Your task to perform on an android device: Open Google Maps and go to "Timeline" Image 0: 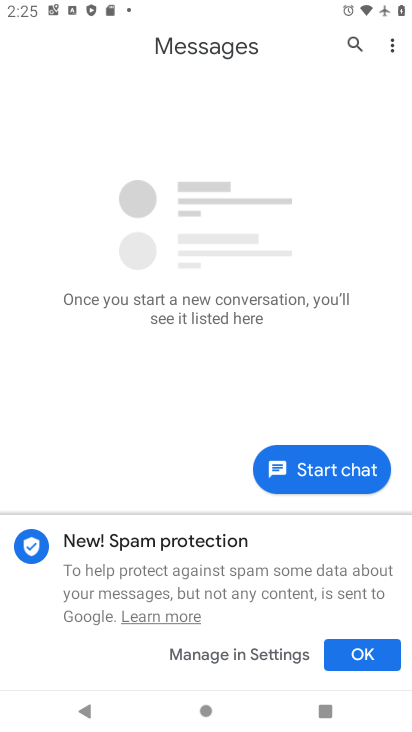
Step 0: press home button
Your task to perform on an android device: Open Google Maps and go to "Timeline" Image 1: 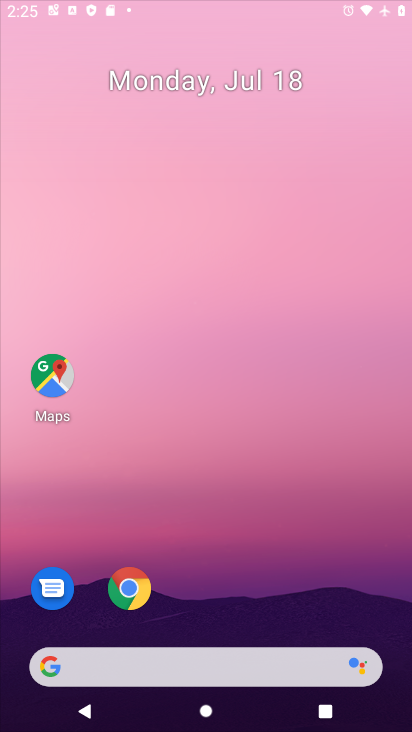
Step 1: drag from (221, 682) to (220, 228)
Your task to perform on an android device: Open Google Maps and go to "Timeline" Image 2: 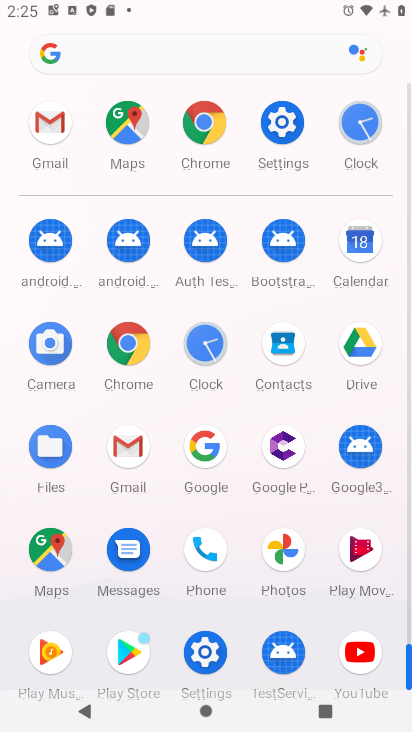
Step 2: click (57, 564)
Your task to perform on an android device: Open Google Maps and go to "Timeline" Image 3: 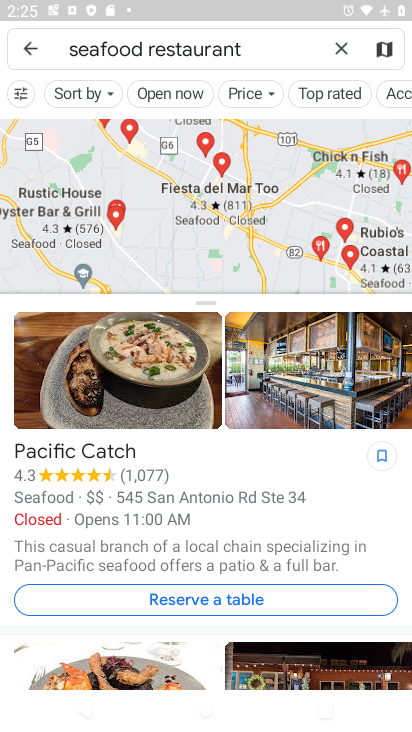
Step 3: click (26, 51)
Your task to perform on an android device: Open Google Maps and go to "Timeline" Image 4: 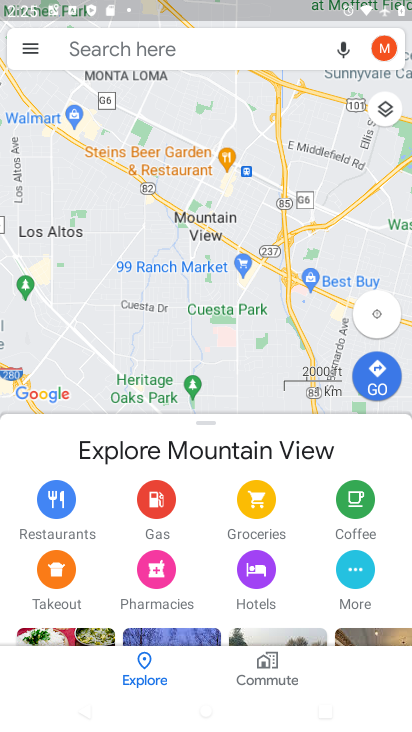
Step 4: click (26, 51)
Your task to perform on an android device: Open Google Maps and go to "Timeline" Image 5: 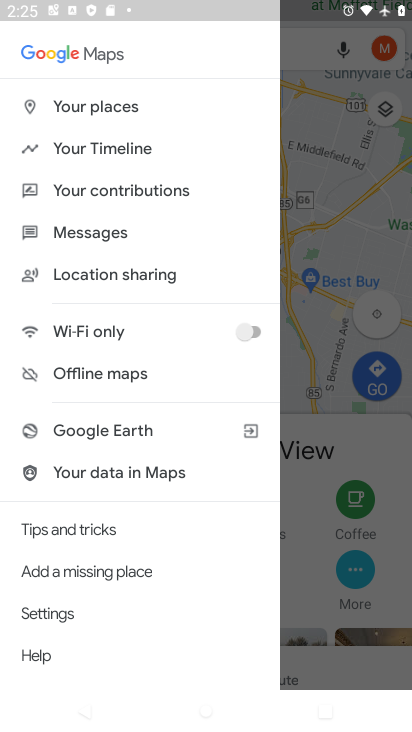
Step 5: click (108, 149)
Your task to perform on an android device: Open Google Maps and go to "Timeline" Image 6: 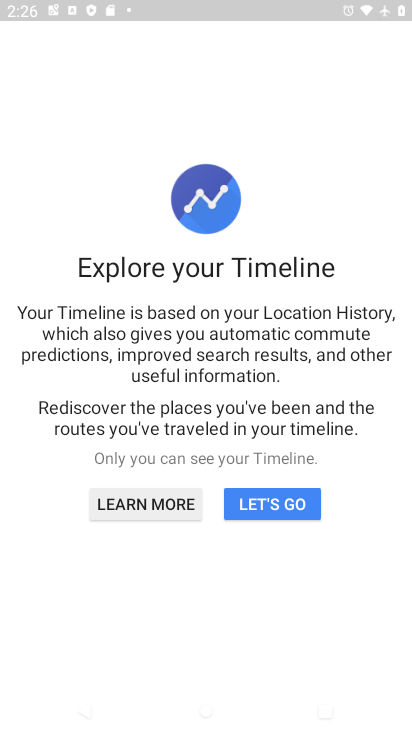
Step 6: click (279, 505)
Your task to perform on an android device: Open Google Maps and go to "Timeline" Image 7: 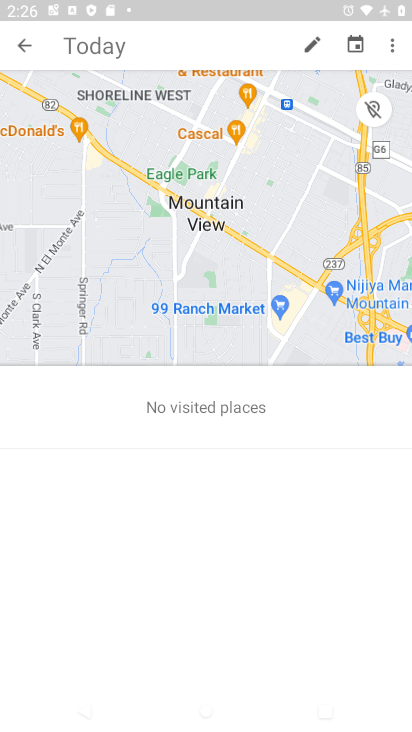
Step 7: task complete